Your task to perform on an android device: Open Google Image 0: 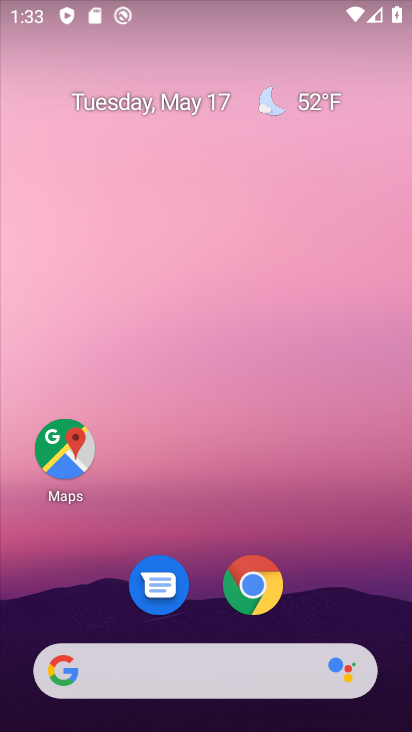
Step 0: click (242, 665)
Your task to perform on an android device: Open Google Image 1: 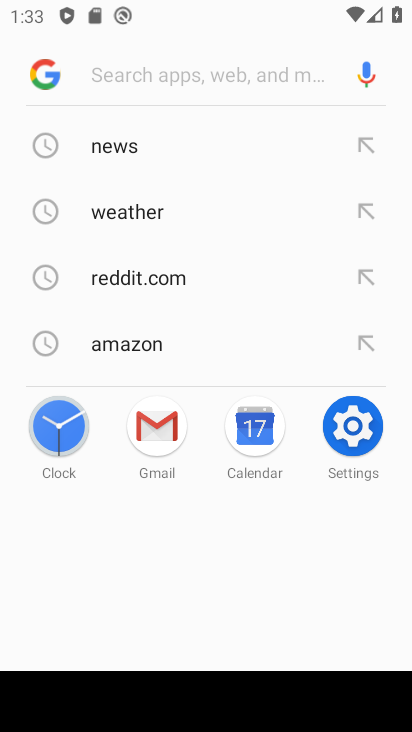
Step 1: click (49, 68)
Your task to perform on an android device: Open Google Image 2: 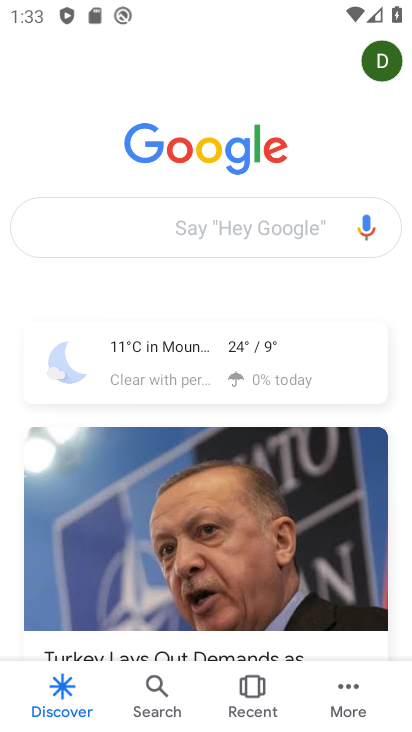
Step 2: task complete